Your task to perform on an android device: Go to Android settings Image 0: 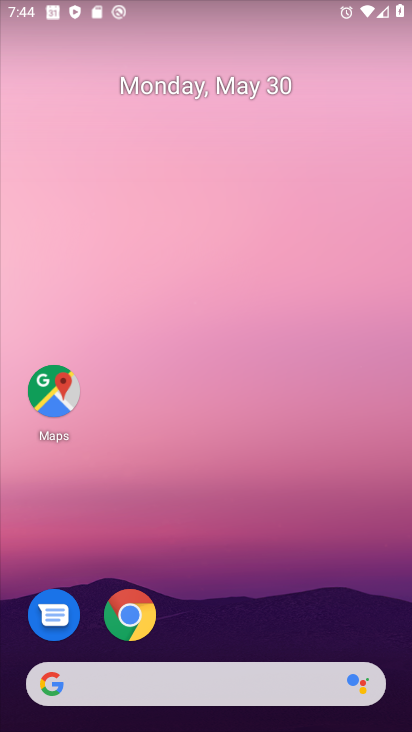
Step 0: drag from (291, 530) to (356, 40)
Your task to perform on an android device: Go to Android settings Image 1: 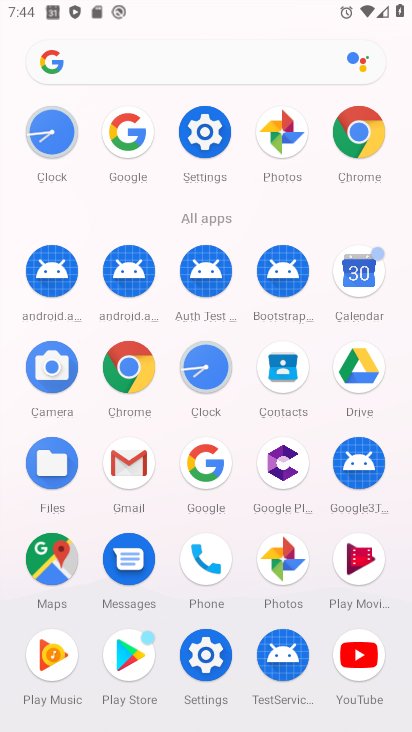
Step 1: click (205, 111)
Your task to perform on an android device: Go to Android settings Image 2: 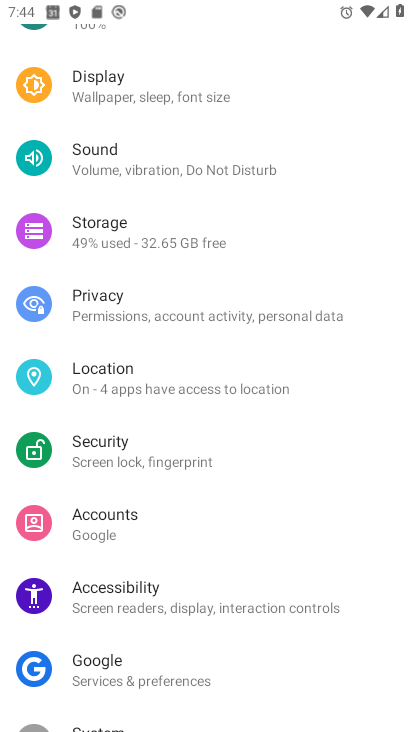
Step 2: task complete